Your task to perform on an android device: Open network settings Image 0: 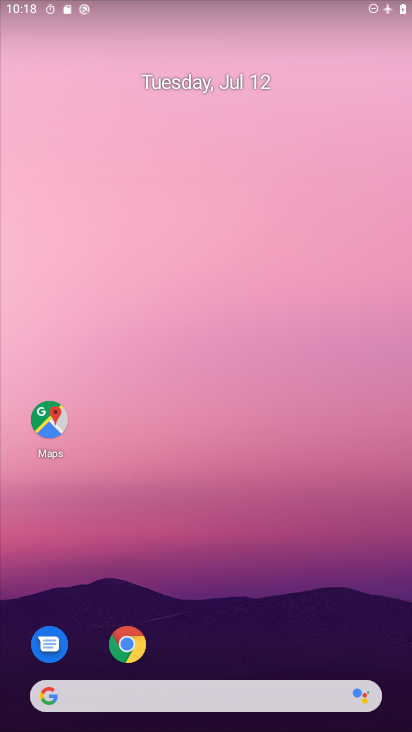
Step 0: drag from (203, 640) to (212, 192)
Your task to perform on an android device: Open network settings Image 1: 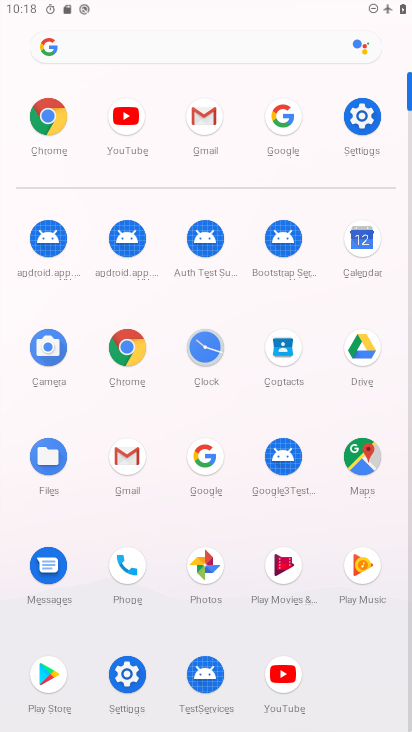
Step 1: click (348, 109)
Your task to perform on an android device: Open network settings Image 2: 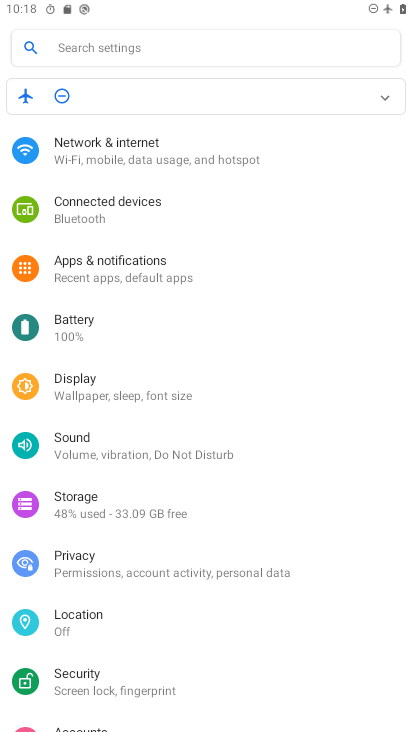
Step 2: click (175, 154)
Your task to perform on an android device: Open network settings Image 3: 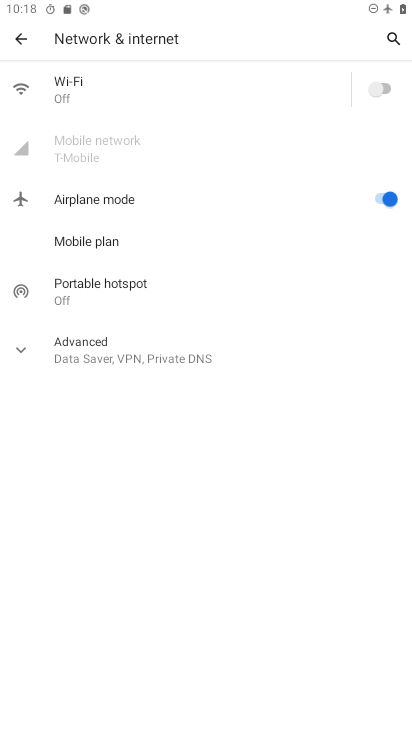
Step 3: task complete